Your task to perform on an android device: all mails in gmail Image 0: 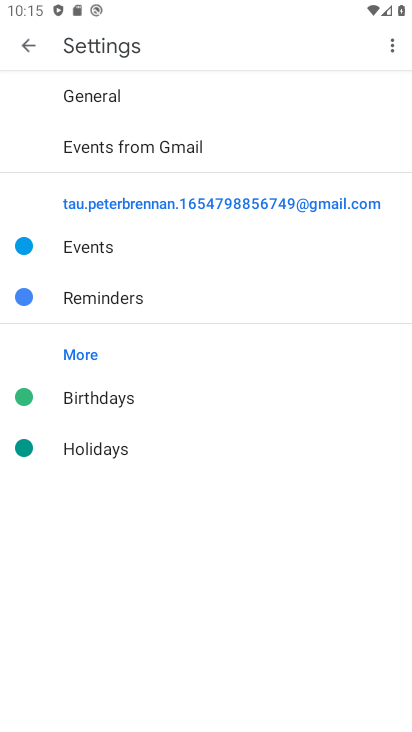
Step 0: press home button
Your task to perform on an android device: all mails in gmail Image 1: 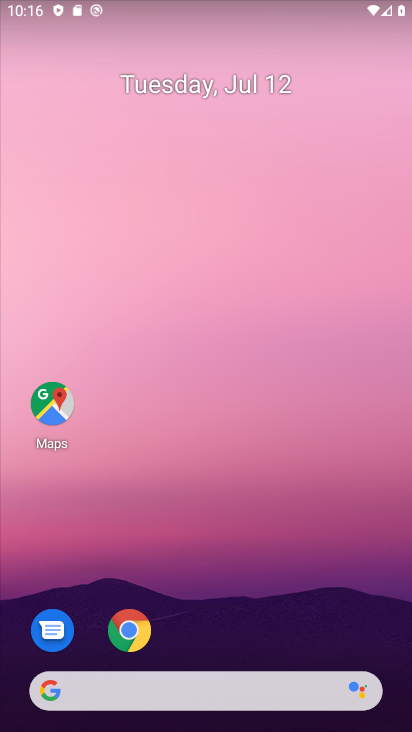
Step 1: drag from (329, 620) to (324, 83)
Your task to perform on an android device: all mails in gmail Image 2: 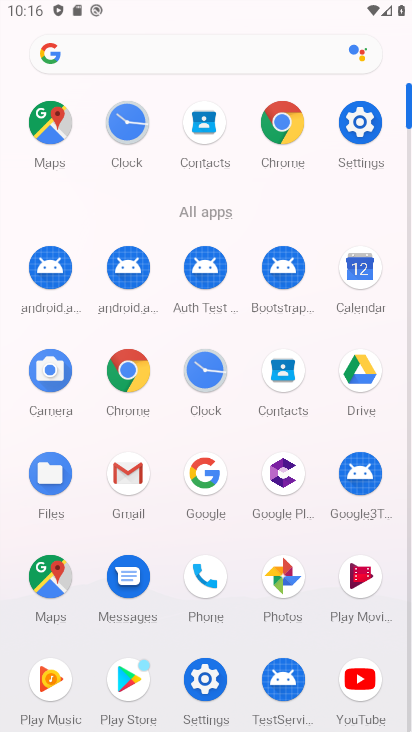
Step 2: click (125, 481)
Your task to perform on an android device: all mails in gmail Image 3: 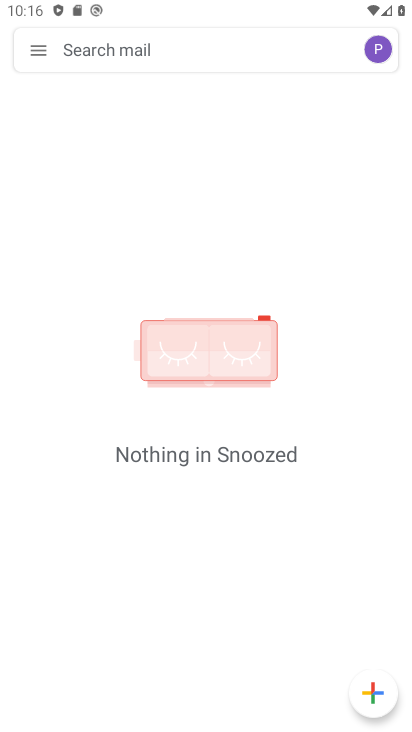
Step 3: click (40, 53)
Your task to perform on an android device: all mails in gmail Image 4: 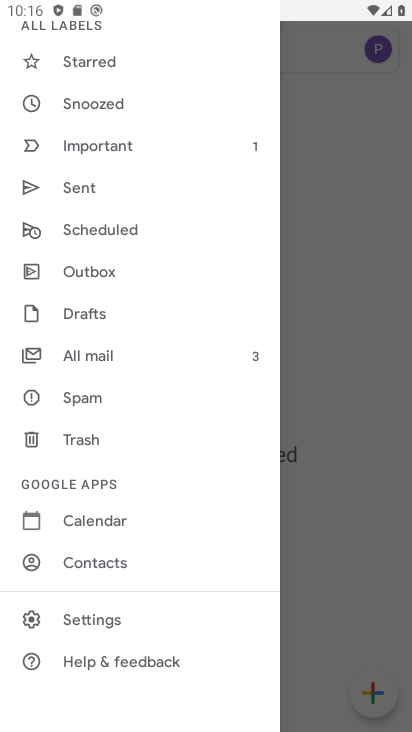
Step 4: drag from (195, 174) to (202, 284)
Your task to perform on an android device: all mails in gmail Image 5: 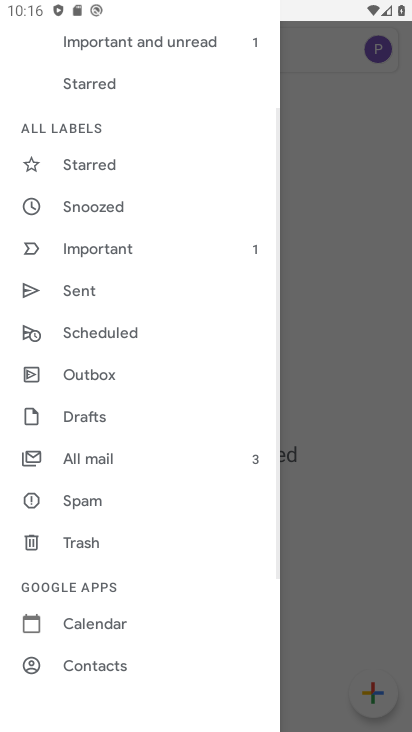
Step 5: drag from (204, 178) to (202, 360)
Your task to perform on an android device: all mails in gmail Image 6: 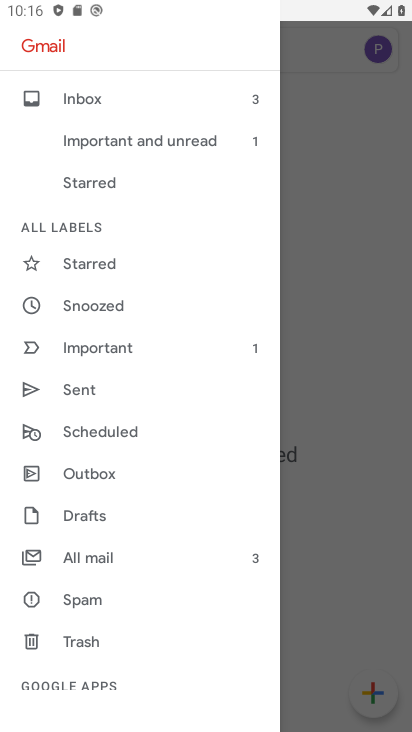
Step 6: drag from (188, 399) to (189, 317)
Your task to perform on an android device: all mails in gmail Image 7: 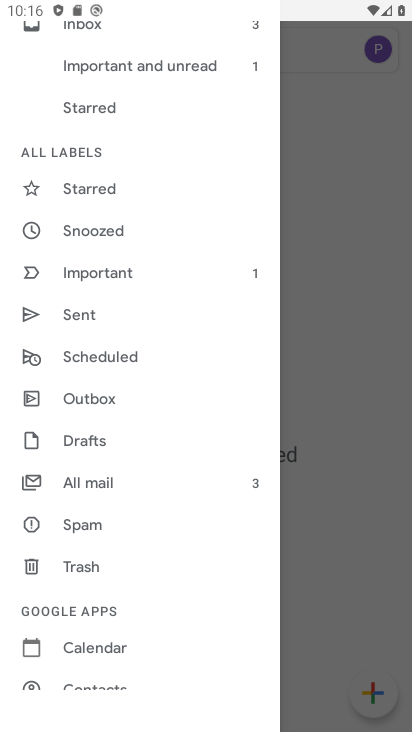
Step 7: drag from (185, 374) to (187, 284)
Your task to perform on an android device: all mails in gmail Image 8: 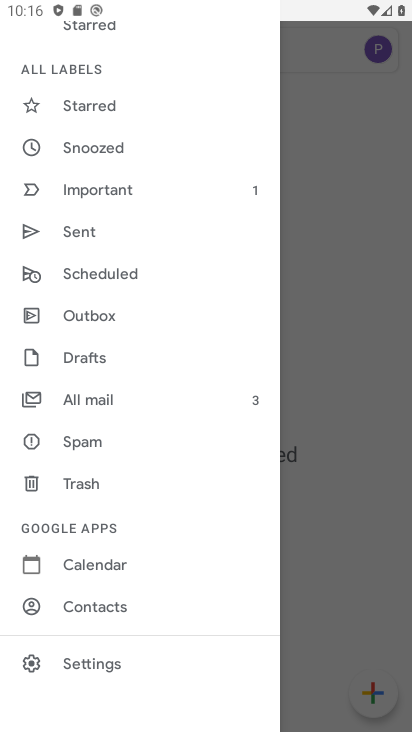
Step 8: drag from (181, 390) to (196, 242)
Your task to perform on an android device: all mails in gmail Image 9: 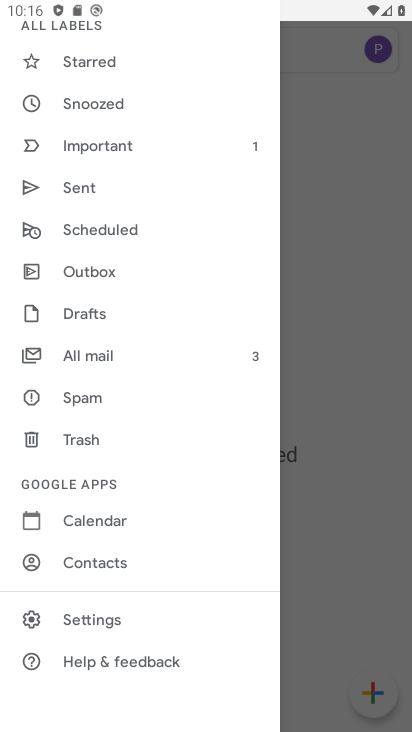
Step 9: click (112, 359)
Your task to perform on an android device: all mails in gmail Image 10: 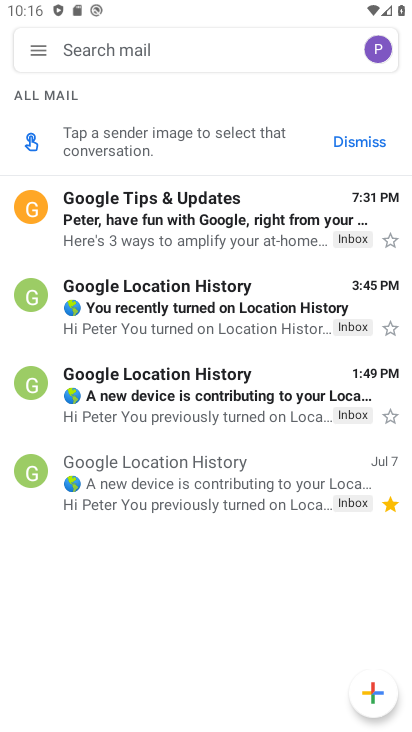
Step 10: task complete